Your task to perform on an android device: turn on bluetooth scan Image 0: 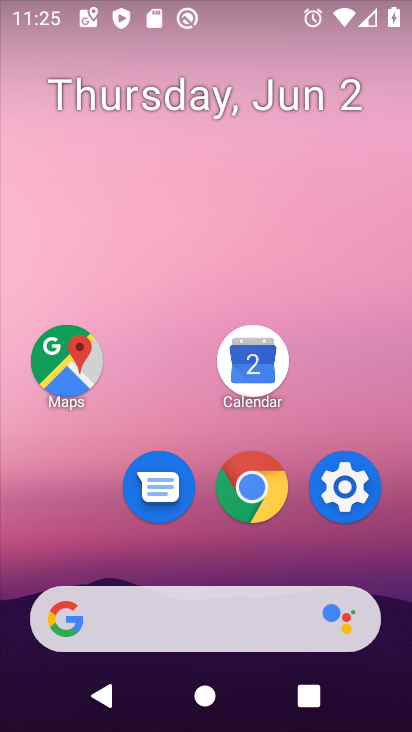
Step 0: drag from (243, 663) to (186, 102)
Your task to perform on an android device: turn on bluetooth scan Image 1: 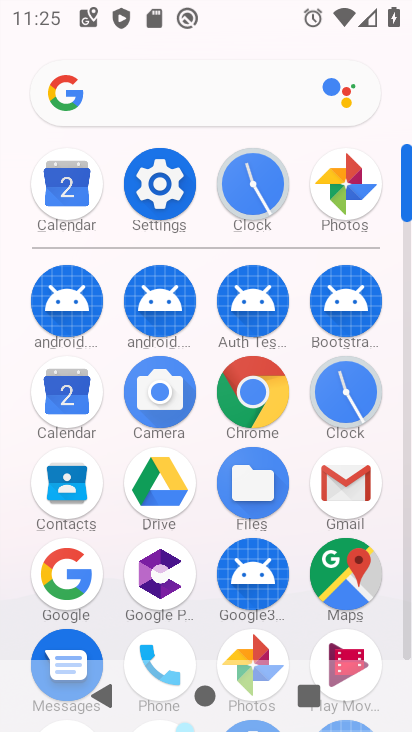
Step 1: click (174, 175)
Your task to perform on an android device: turn on bluetooth scan Image 2: 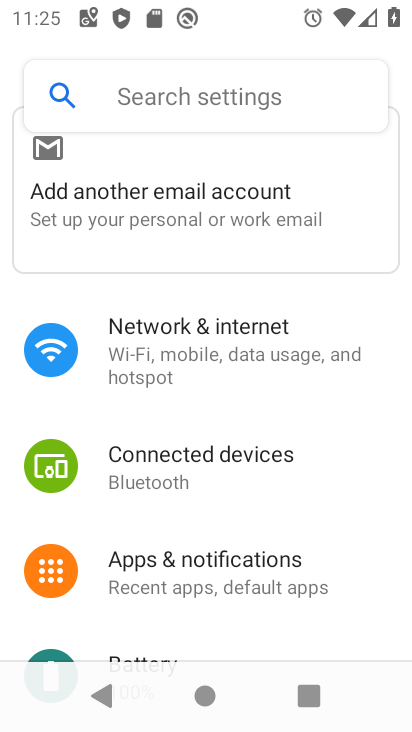
Step 2: click (176, 105)
Your task to perform on an android device: turn on bluetooth scan Image 3: 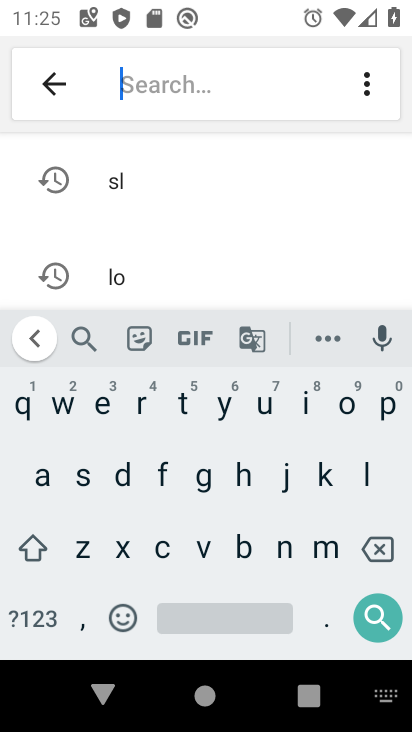
Step 3: click (359, 476)
Your task to perform on an android device: turn on bluetooth scan Image 4: 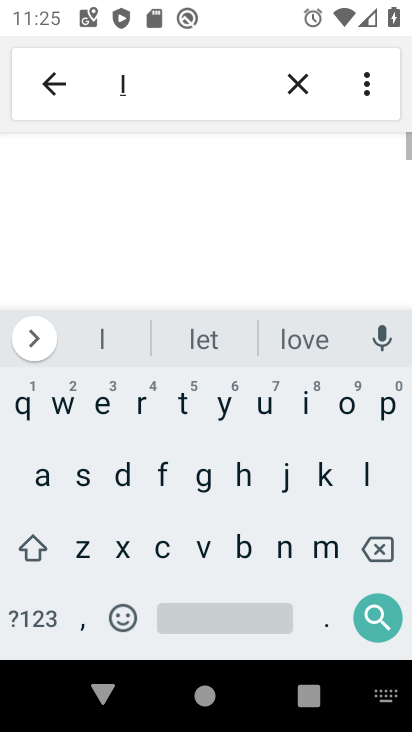
Step 4: click (342, 405)
Your task to perform on an android device: turn on bluetooth scan Image 5: 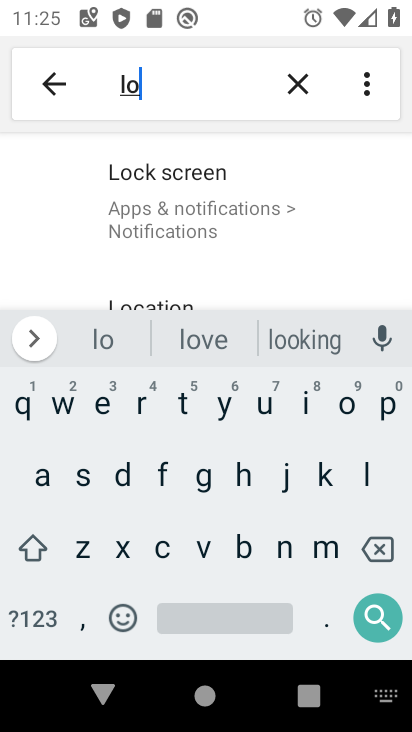
Step 5: click (157, 294)
Your task to perform on an android device: turn on bluetooth scan Image 6: 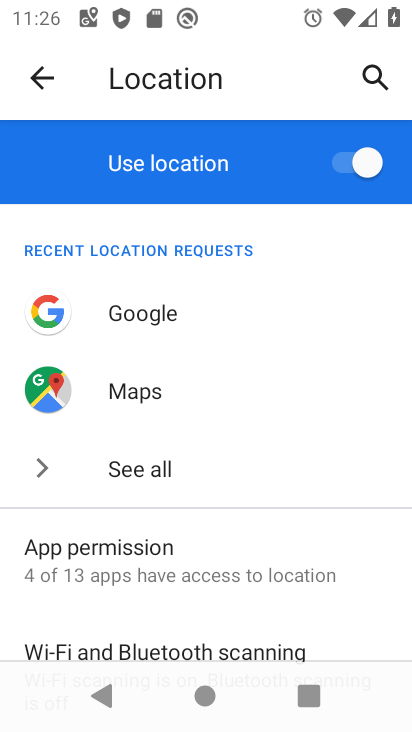
Step 6: drag from (181, 629) to (207, 429)
Your task to perform on an android device: turn on bluetooth scan Image 7: 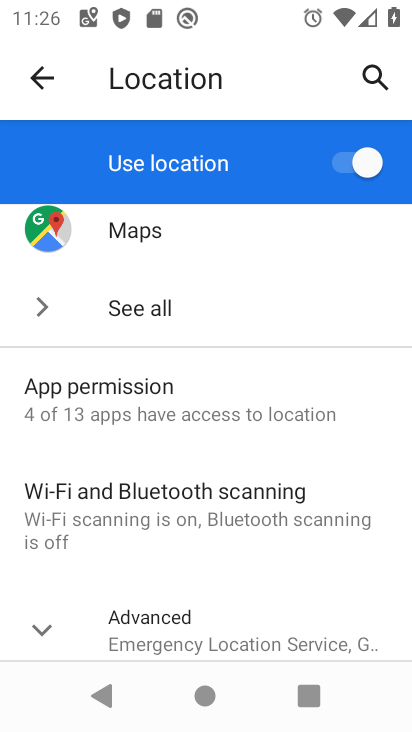
Step 7: click (188, 487)
Your task to perform on an android device: turn on bluetooth scan Image 8: 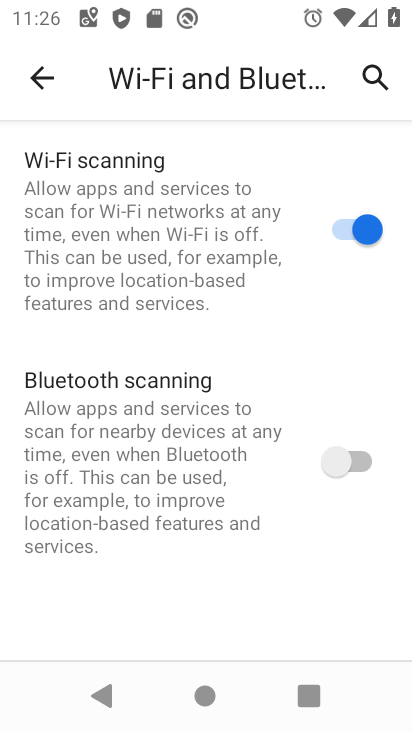
Step 8: click (332, 452)
Your task to perform on an android device: turn on bluetooth scan Image 9: 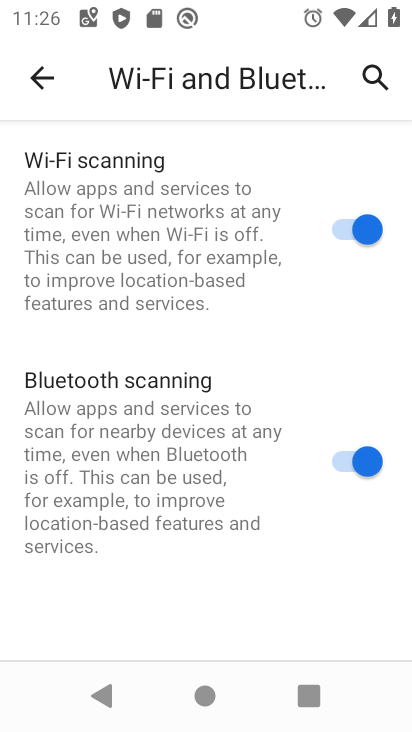
Step 9: task complete